Your task to perform on an android device: Clear the cart on amazon.com. Search for sony triple a on amazon.com, select the first entry, and add it to the cart. Image 0: 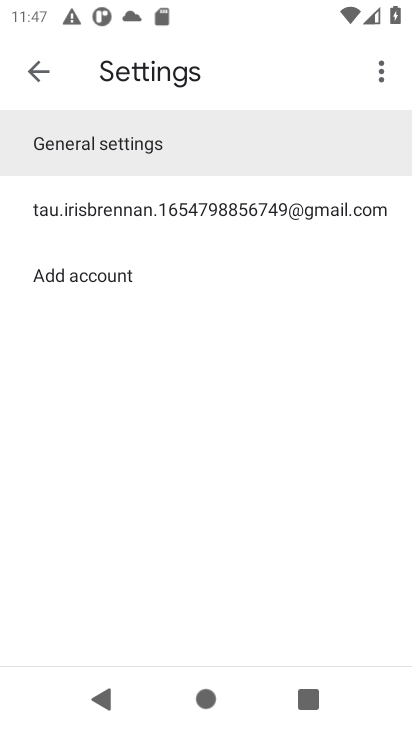
Step 0: task complete